Your task to perform on an android device: install app "Gboard" Image 0: 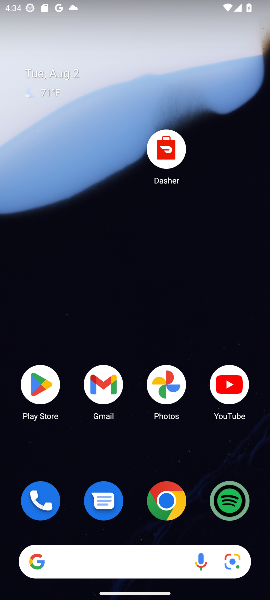
Step 0: click (31, 388)
Your task to perform on an android device: install app "Gboard" Image 1: 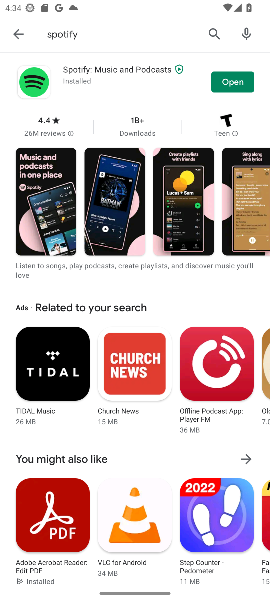
Step 1: click (215, 30)
Your task to perform on an android device: install app "Gboard" Image 2: 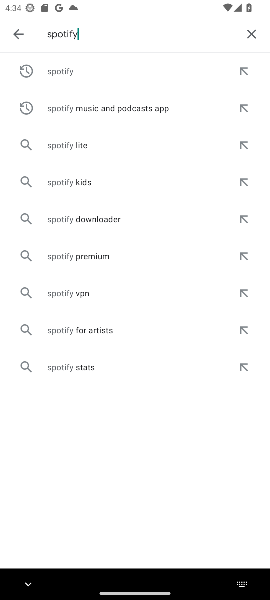
Step 2: click (256, 35)
Your task to perform on an android device: install app "Gboard" Image 3: 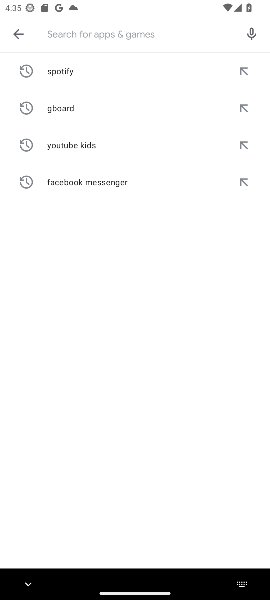
Step 3: type "Gboard"
Your task to perform on an android device: install app "Gboard" Image 4: 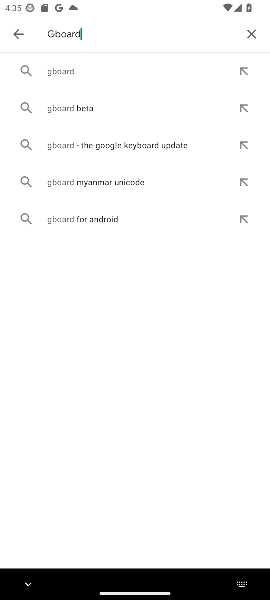
Step 4: click (57, 74)
Your task to perform on an android device: install app "Gboard" Image 5: 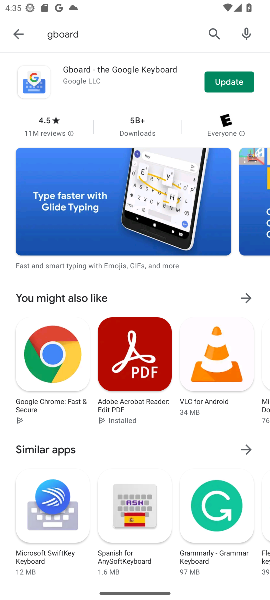
Step 5: task complete